Your task to perform on an android device: Is it going to rain this weekend? Image 0: 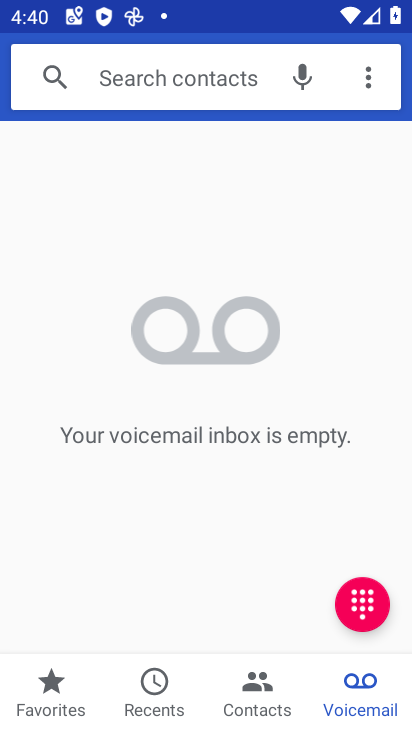
Step 0: press home button
Your task to perform on an android device: Is it going to rain this weekend? Image 1: 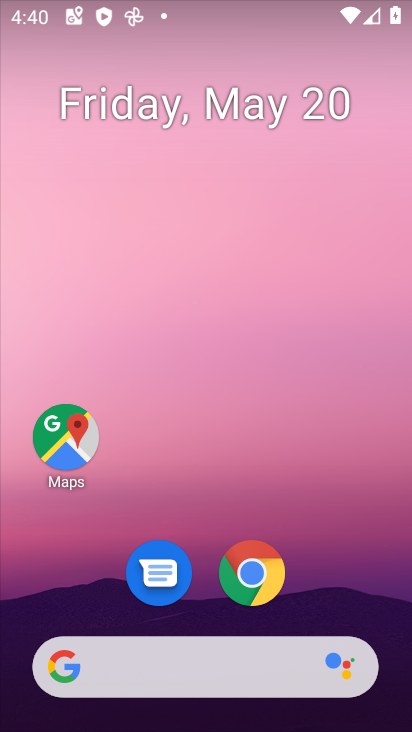
Step 1: drag from (5, 211) to (358, 218)
Your task to perform on an android device: Is it going to rain this weekend? Image 2: 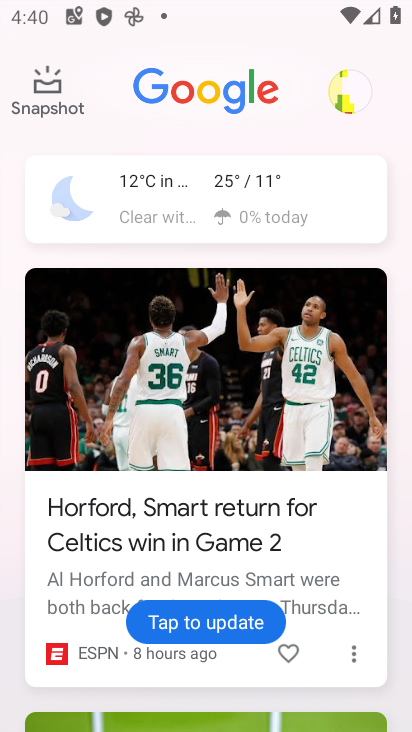
Step 2: click (266, 189)
Your task to perform on an android device: Is it going to rain this weekend? Image 3: 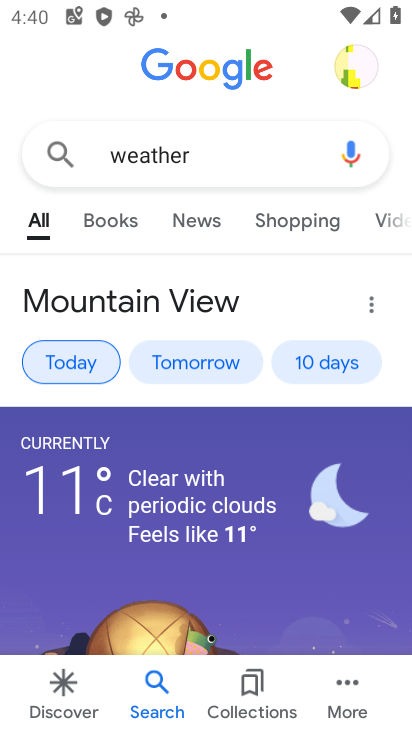
Step 3: click (330, 364)
Your task to perform on an android device: Is it going to rain this weekend? Image 4: 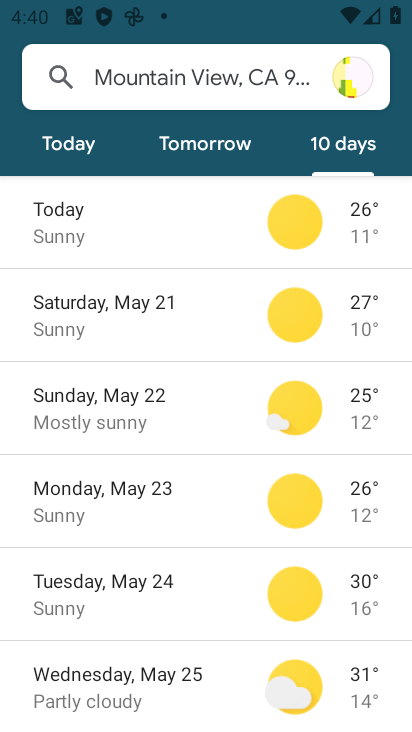
Step 4: task complete